Your task to perform on an android device: turn notification dots on Image 0: 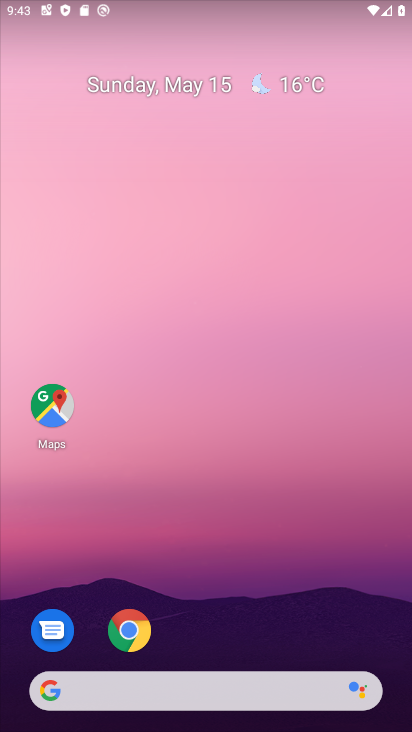
Step 0: drag from (211, 634) to (218, 138)
Your task to perform on an android device: turn notification dots on Image 1: 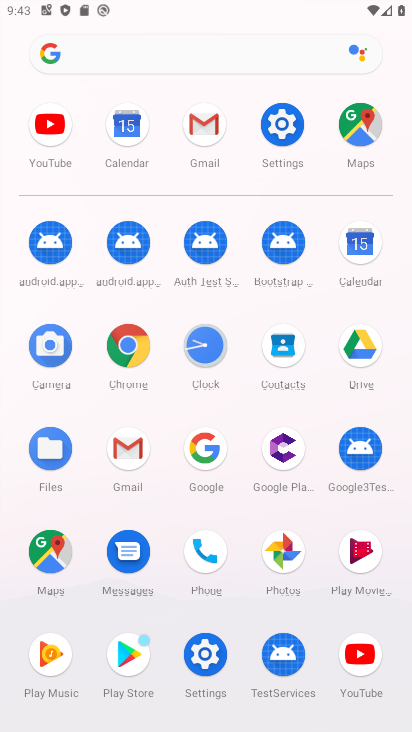
Step 1: click (295, 135)
Your task to perform on an android device: turn notification dots on Image 2: 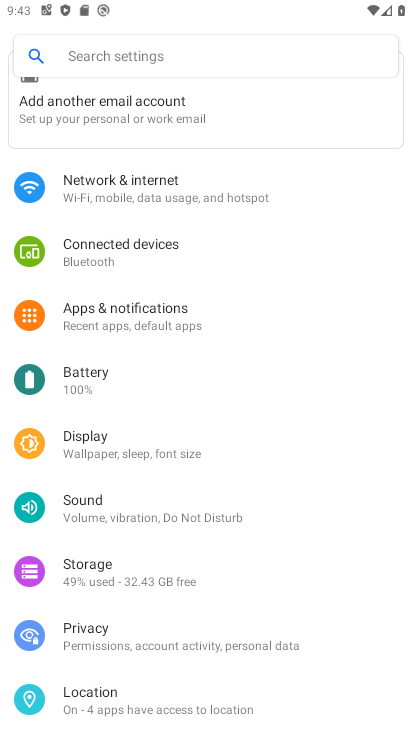
Step 2: click (147, 332)
Your task to perform on an android device: turn notification dots on Image 3: 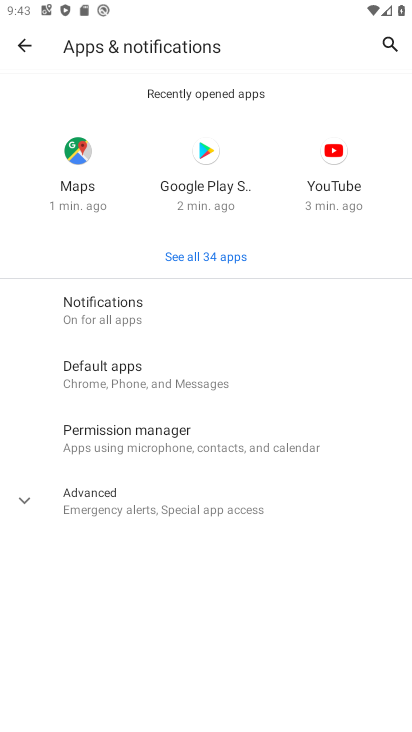
Step 3: click (122, 297)
Your task to perform on an android device: turn notification dots on Image 4: 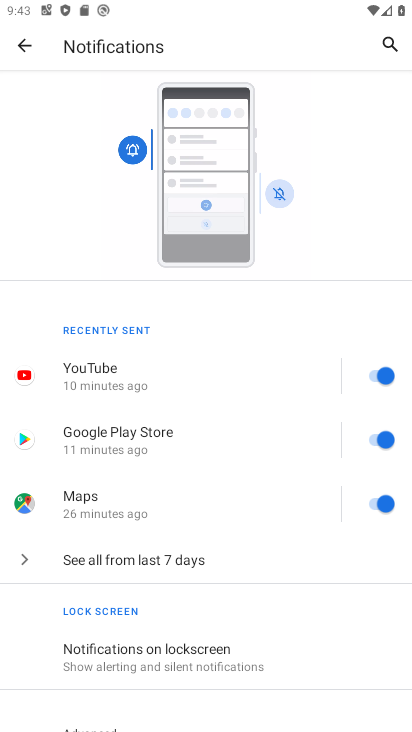
Step 4: drag from (261, 621) to (274, 377)
Your task to perform on an android device: turn notification dots on Image 5: 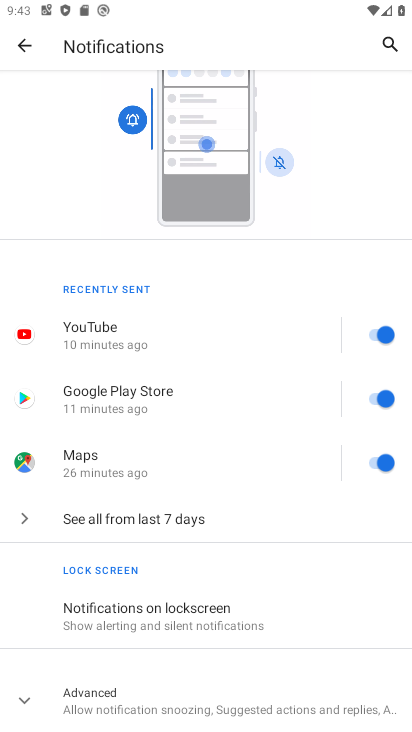
Step 5: click (193, 706)
Your task to perform on an android device: turn notification dots on Image 6: 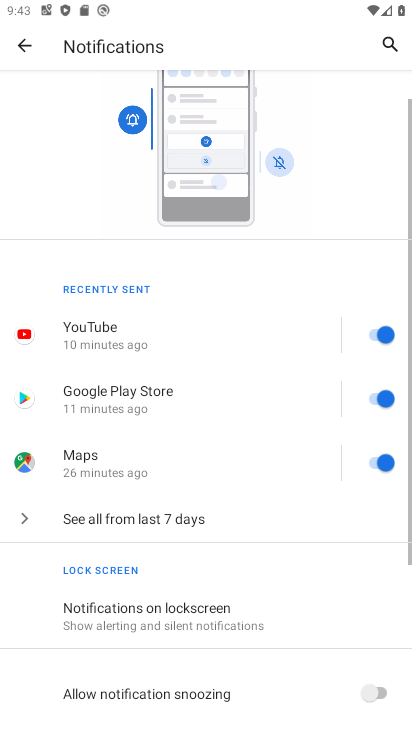
Step 6: task complete